Your task to perform on an android device: Open the Play Movies app and select the watchlist tab. Image 0: 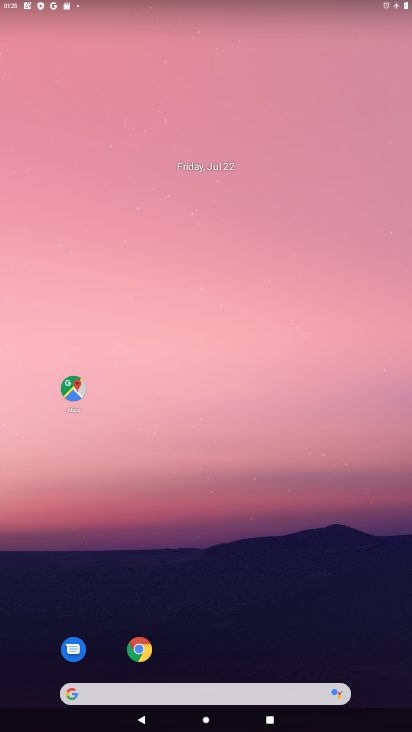
Step 0: press home button
Your task to perform on an android device: Open the Play Movies app and select the watchlist tab. Image 1: 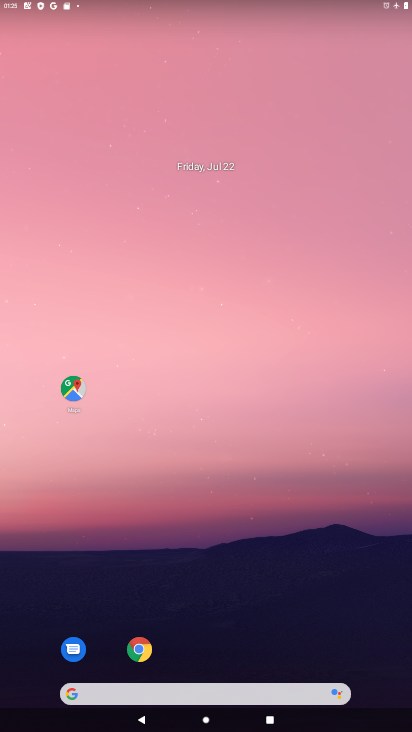
Step 1: drag from (292, 637) to (267, 109)
Your task to perform on an android device: Open the Play Movies app and select the watchlist tab. Image 2: 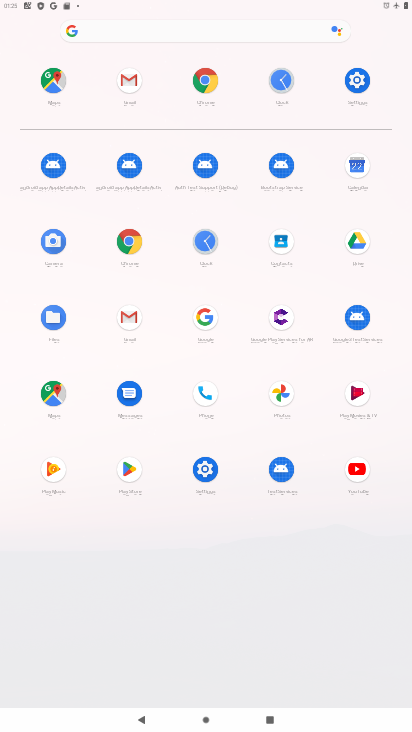
Step 2: click (349, 399)
Your task to perform on an android device: Open the Play Movies app and select the watchlist tab. Image 3: 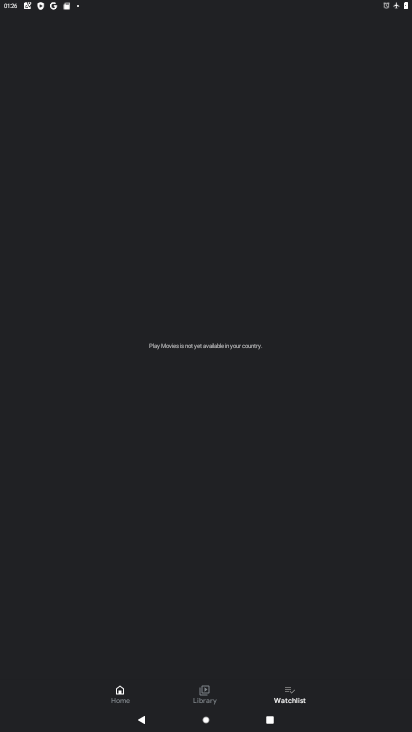
Step 3: click (292, 705)
Your task to perform on an android device: Open the Play Movies app and select the watchlist tab. Image 4: 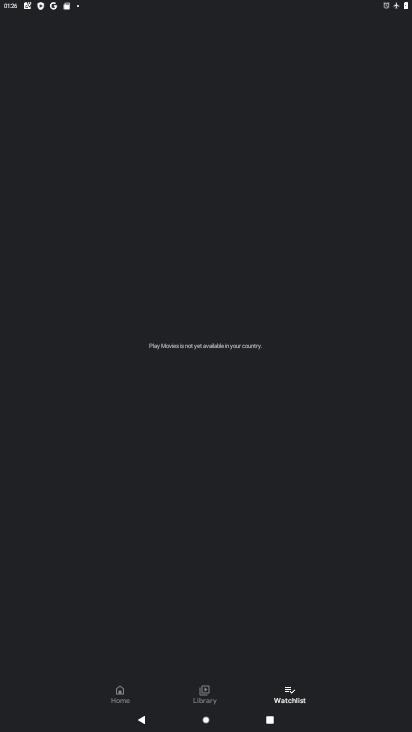
Step 4: task complete